Your task to perform on an android device: Open Chrome and go to settings Image 0: 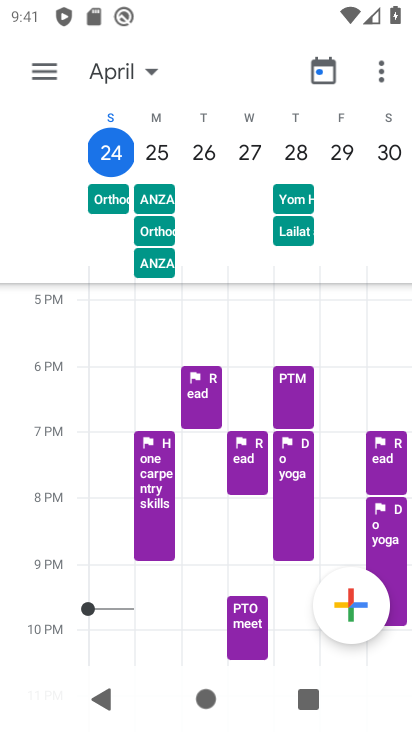
Step 0: press back button
Your task to perform on an android device: Open Chrome and go to settings Image 1: 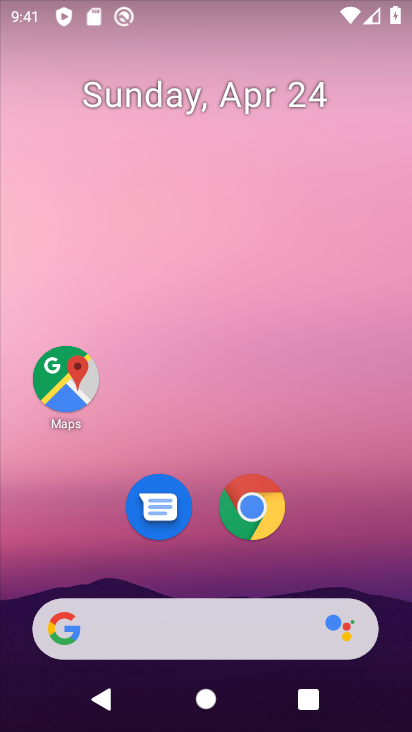
Step 1: click (265, 510)
Your task to perform on an android device: Open Chrome and go to settings Image 2: 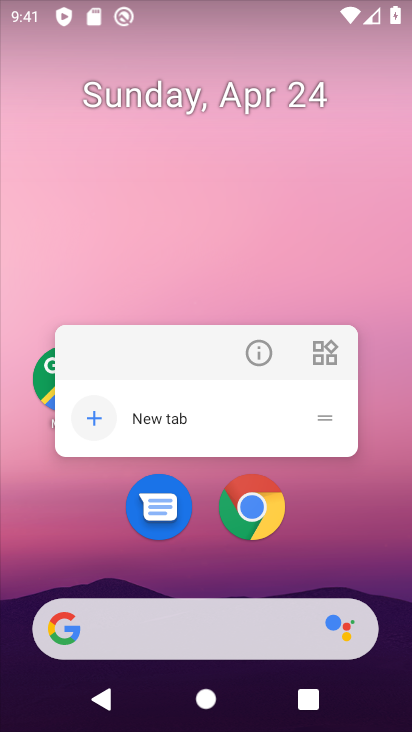
Step 2: click (265, 510)
Your task to perform on an android device: Open Chrome and go to settings Image 3: 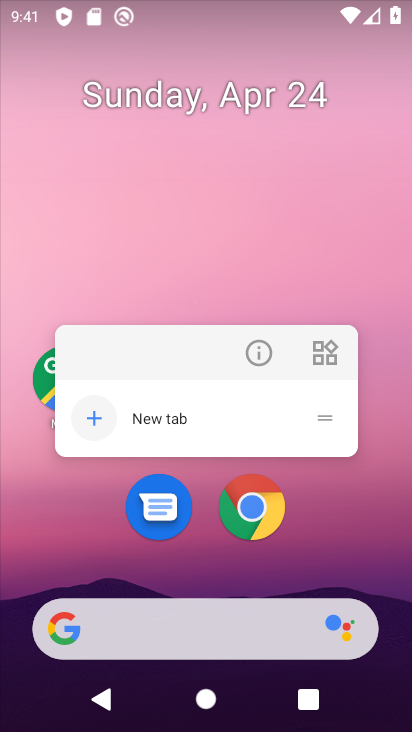
Step 3: click (263, 509)
Your task to perform on an android device: Open Chrome and go to settings Image 4: 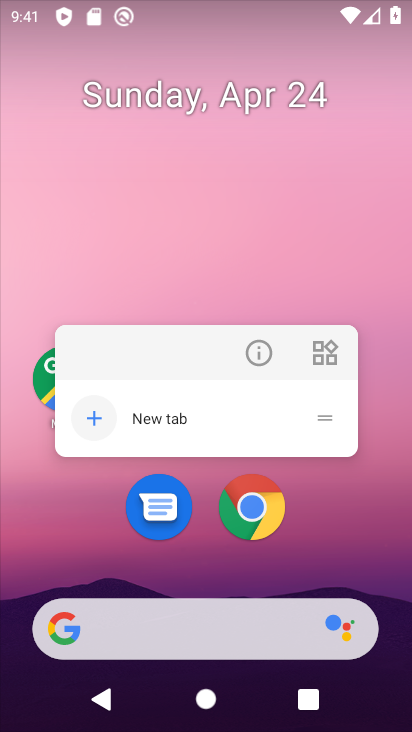
Step 4: click (263, 510)
Your task to perform on an android device: Open Chrome and go to settings Image 5: 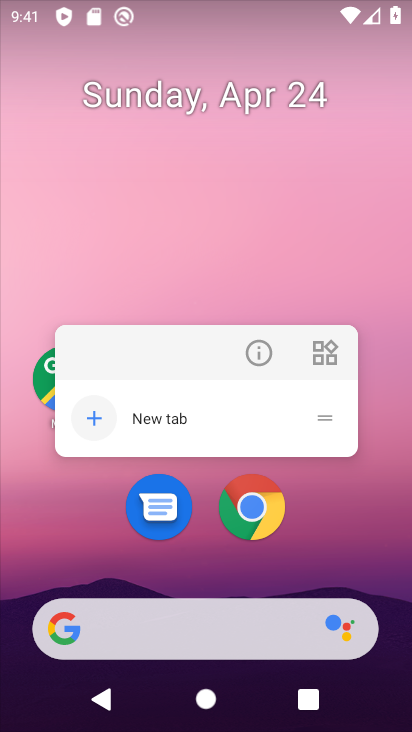
Step 5: click (263, 510)
Your task to perform on an android device: Open Chrome and go to settings Image 6: 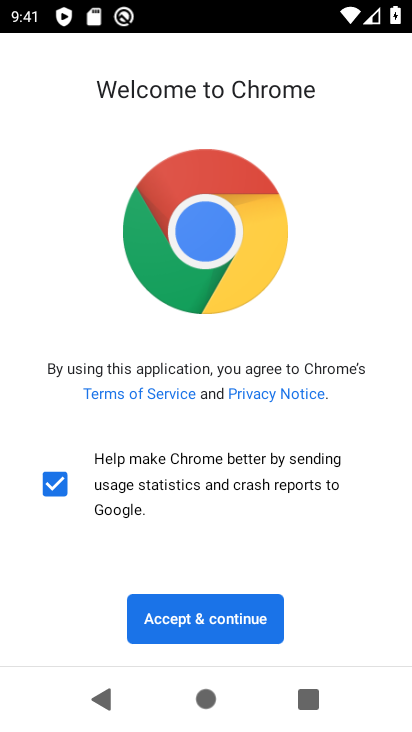
Step 6: click (254, 612)
Your task to perform on an android device: Open Chrome and go to settings Image 7: 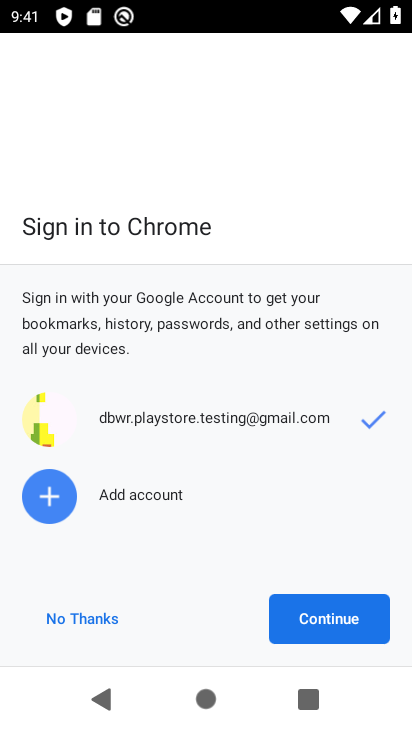
Step 7: click (309, 618)
Your task to perform on an android device: Open Chrome and go to settings Image 8: 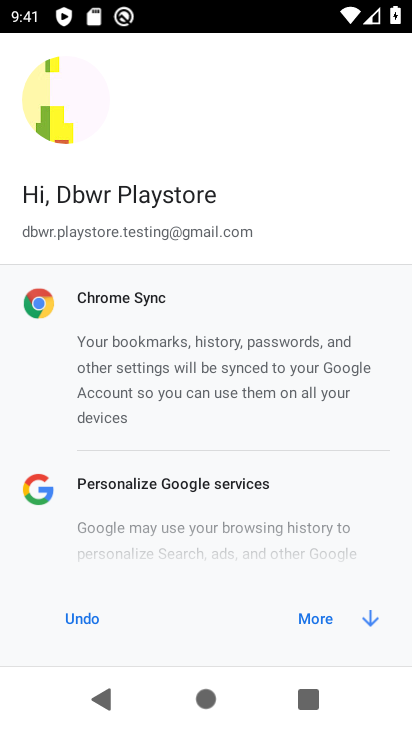
Step 8: click (301, 619)
Your task to perform on an android device: Open Chrome and go to settings Image 9: 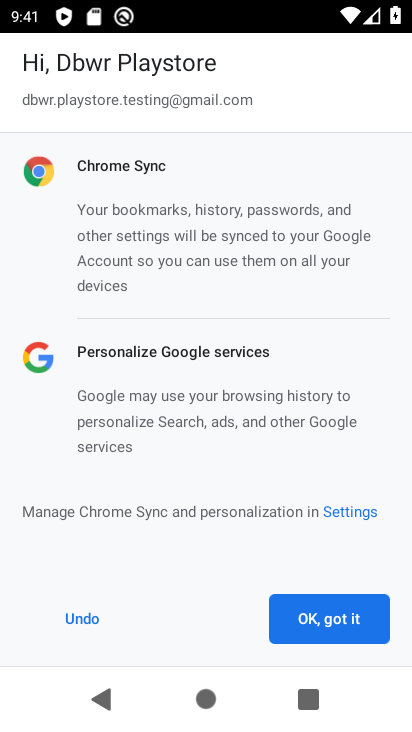
Step 9: click (318, 630)
Your task to perform on an android device: Open Chrome and go to settings Image 10: 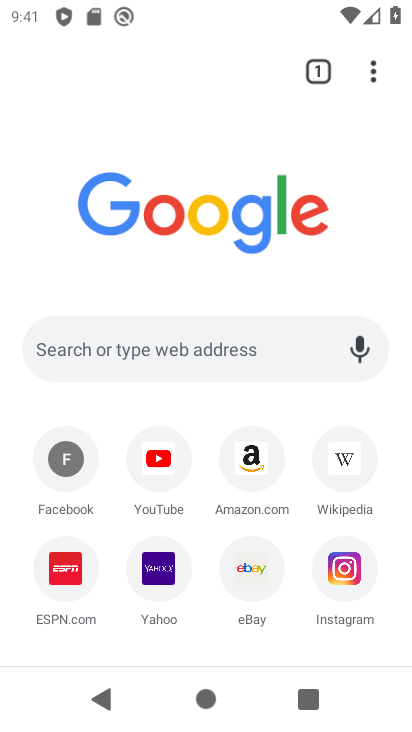
Step 10: task complete